Your task to perform on an android device: turn off priority inbox in the gmail app Image 0: 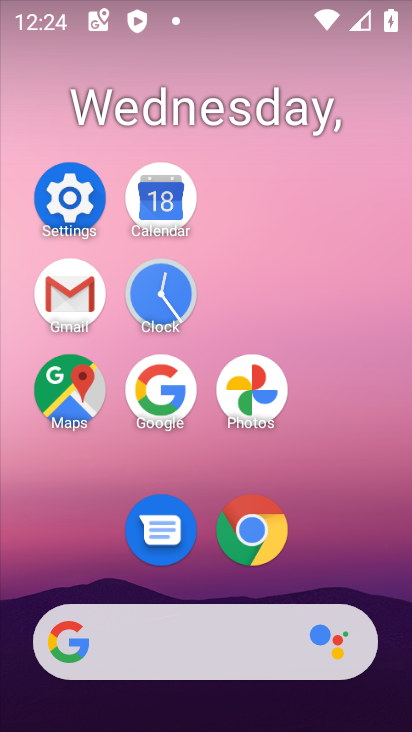
Step 0: click (81, 300)
Your task to perform on an android device: turn off priority inbox in the gmail app Image 1: 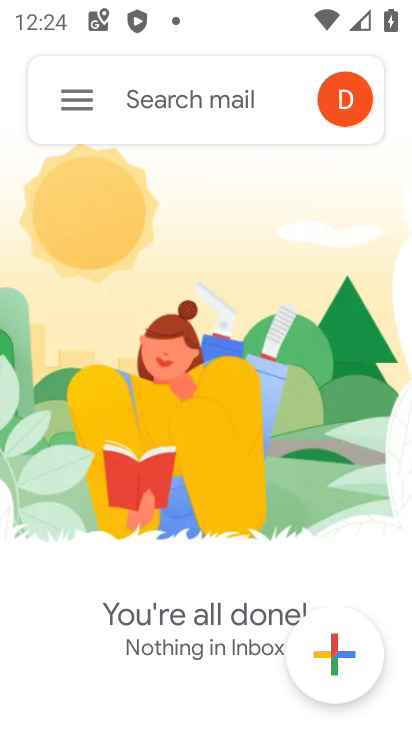
Step 1: click (54, 97)
Your task to perform on an android device: turn off priority inbox in the gmail app Image 2: 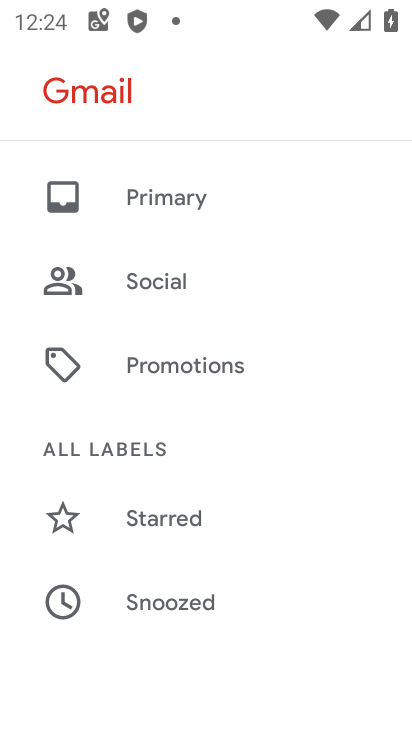
Step 2: drag from (231, 516) to (251, 197)
Your task to perform on an android device: turn off priority inbox in the gmail app Image 3: 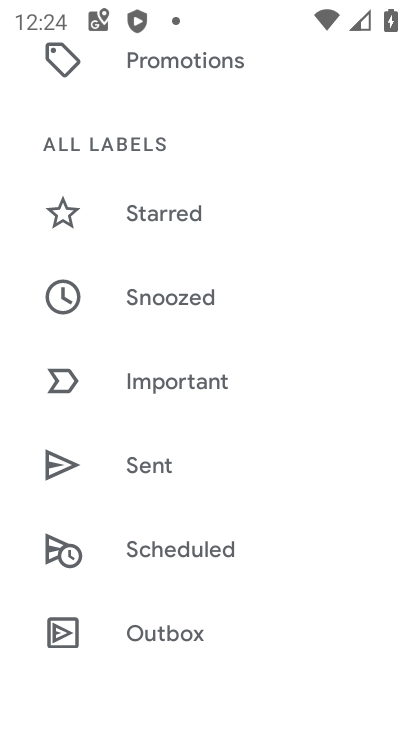
Step 3: drag from (239, 574) to (284, 265)
Your task to perform on an android device: turn off priority inbox in the gmail app Image 4: 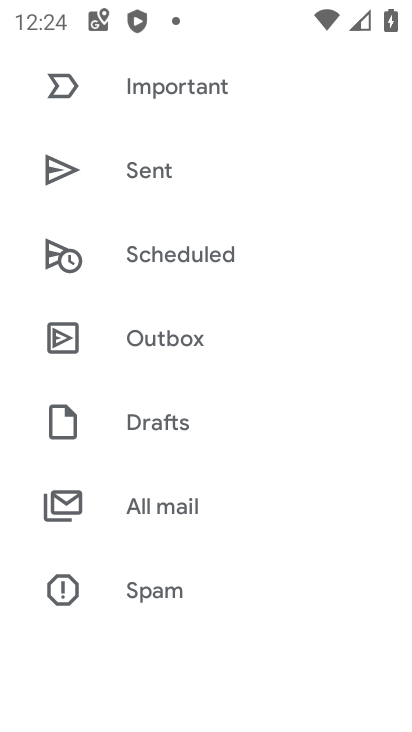
Step 4: drag from (255, 562) to (283, 275)
Your task to perform on an android device: turn off priority inbox in the gmail app Image 5: 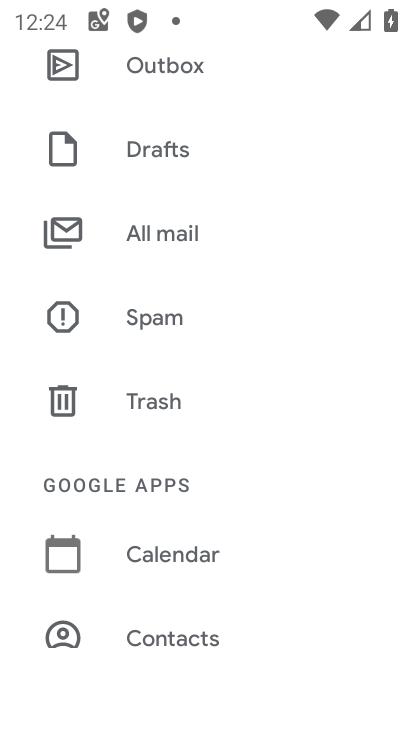
Step 5: drag from (229, 553) to (241, 228)
Your task to perform on an android device: turn off priority inbox in the gmail app Image 6: 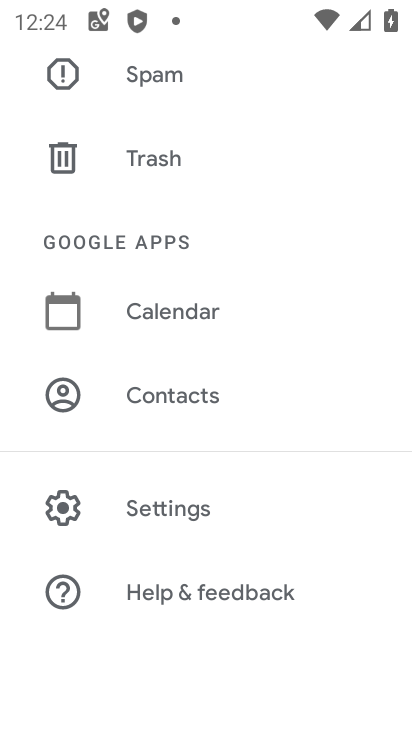
Step 6: click (232, 517)
Your task to perform on an android device: turn off priority inbox in the gmail app Image 7: 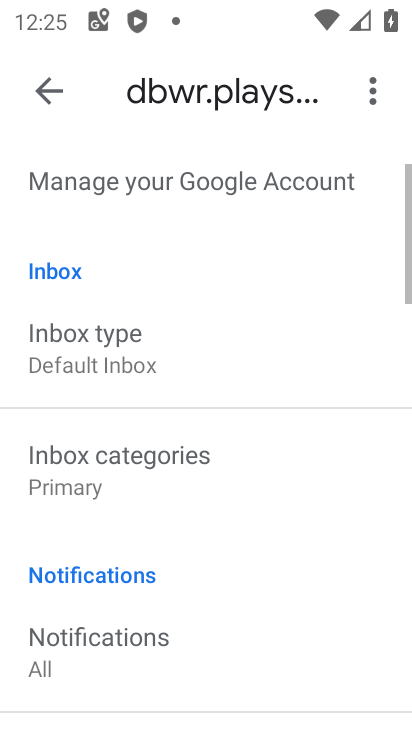
Step 7: click (158, 330)
Your task to perform on an android device: turn off priority inbox in the gmail app Image 8: 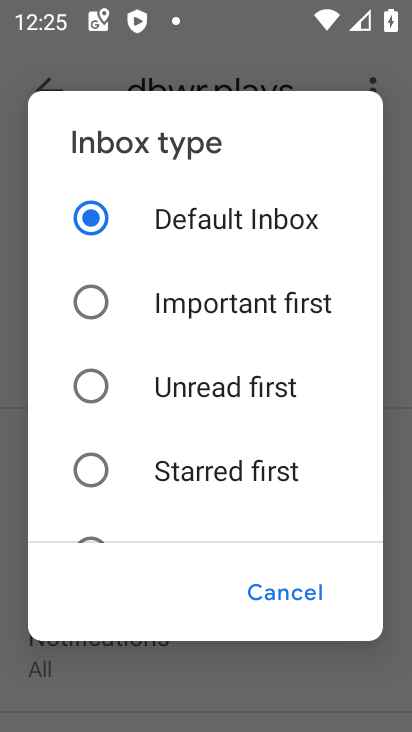
Step 8: task complete